Your task to perform on an android device: see tabs open on other devices in the chrome app Image 0: 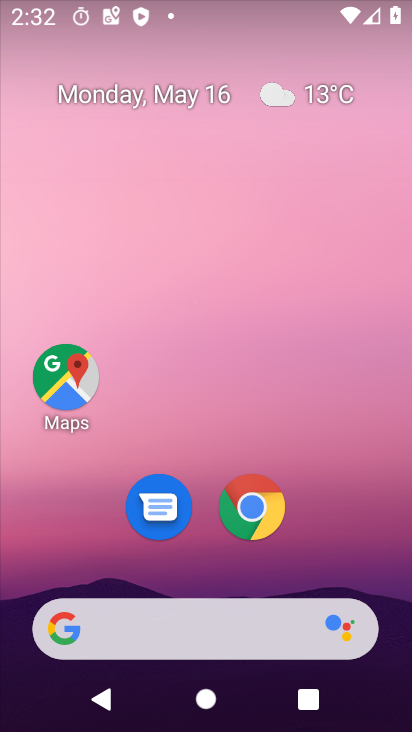
Step 0: drag from (378, 563) to (385, 128)
Your task to perform on an android device: see tabs open on other devices in the chrome app Image 1: 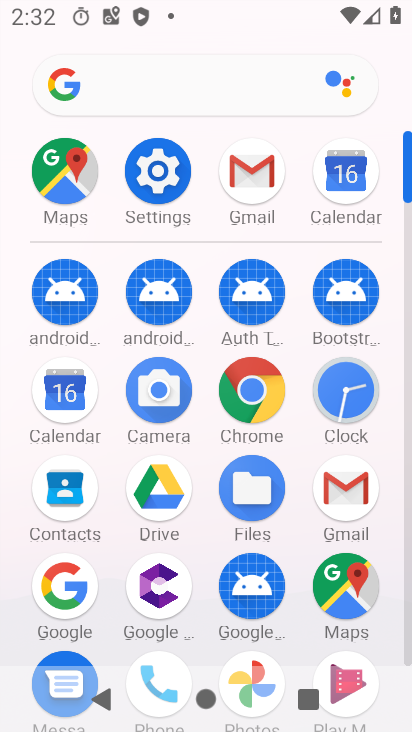
Step 1: click (262, 390)
Your task to perform on an android device: see tabs open on other devices in the chrome app Image 2: 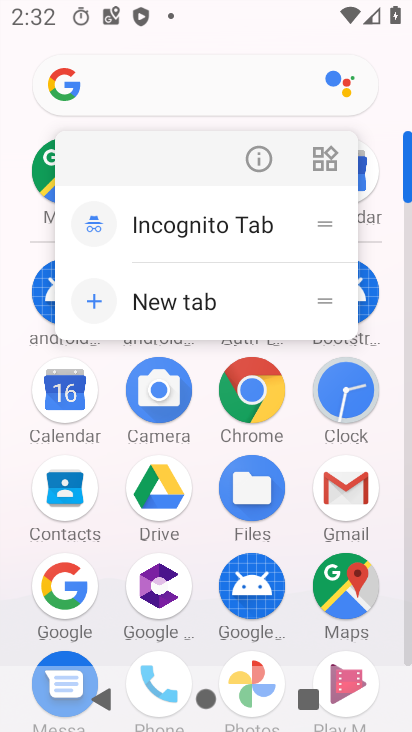
Step 2: click (254, 394)
Your task to perform on an android device: see tabs open on other devices in the chrome app Image 3: 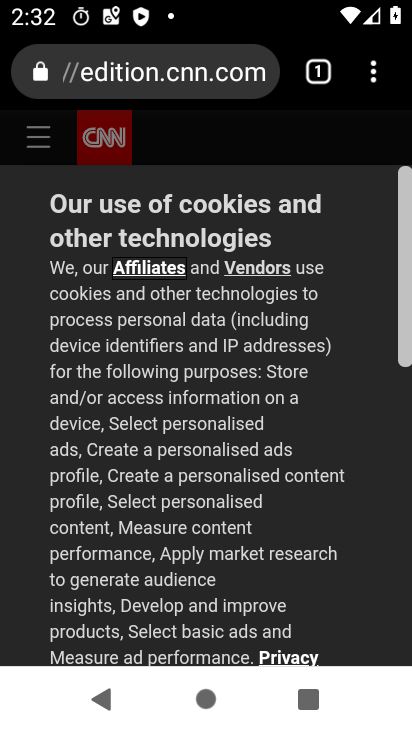
Step 3: click (370, 69)
Your task to perform on an android device: see tabs open on other devices in the chrome app Image 4: 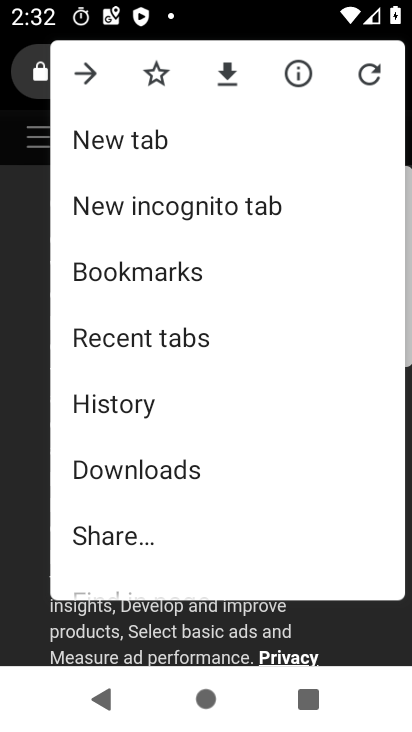
Step 4: click (204, 346)
Your task to perform on an android device: see tabs open on other devices in the chrome app Image 5: 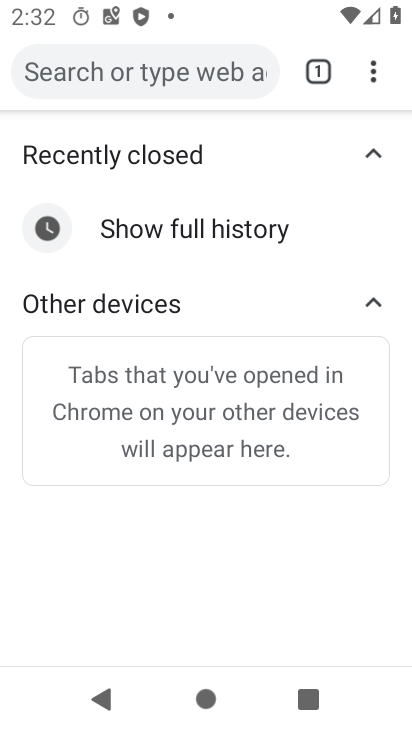
Step 5: click (308, 79)
Your task to perform on an android device: see tabs open on other devices in the chrome app Image 6: 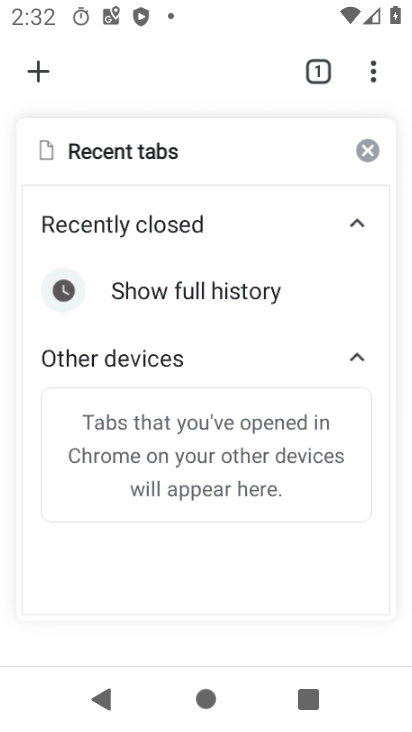
Step 6: task complete